Your task to perform on an android device: check google app version Image 0: 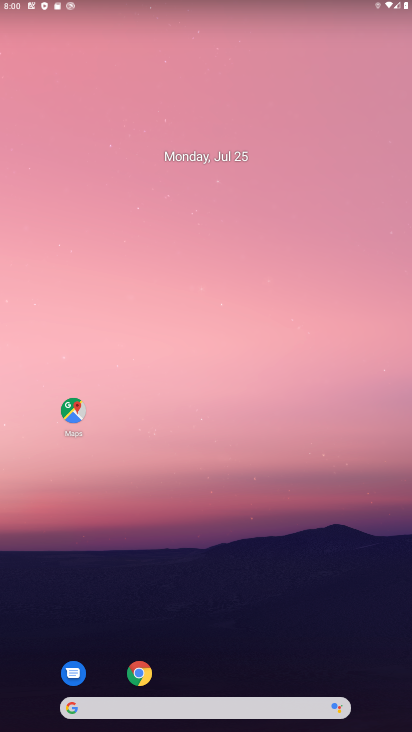
Step 0: click (216, 316)
Your task to perform on an android device: check google app version Image 1: 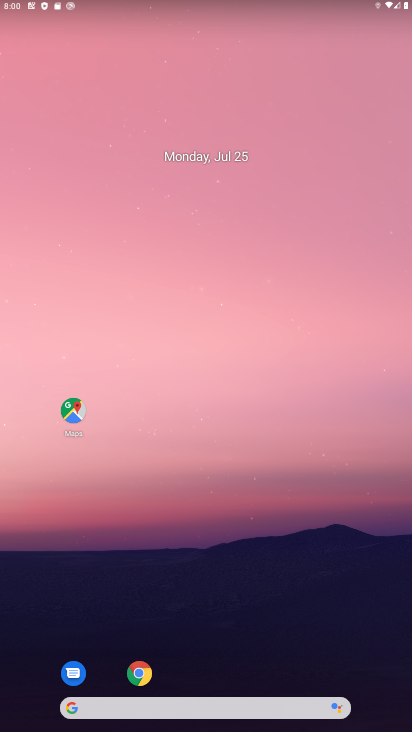
Step 1: drag from (277, 623) to (206, 92)
Your task to perform on an android device: check google app version Image 2: 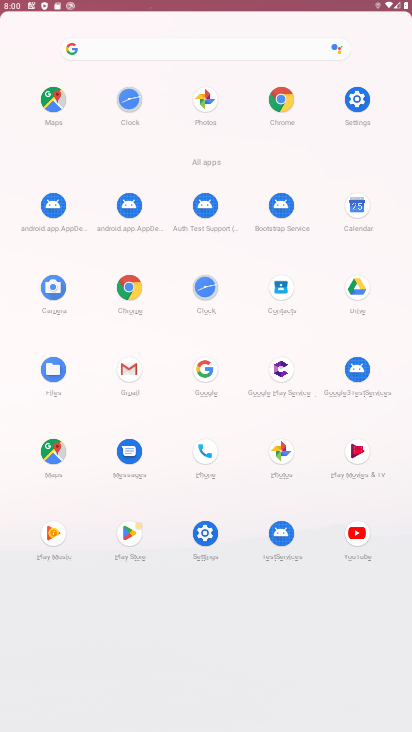
Step 2: drag from (267, 624) to (220, 173)
Your task to perform on an android device: check google app version Image 3: 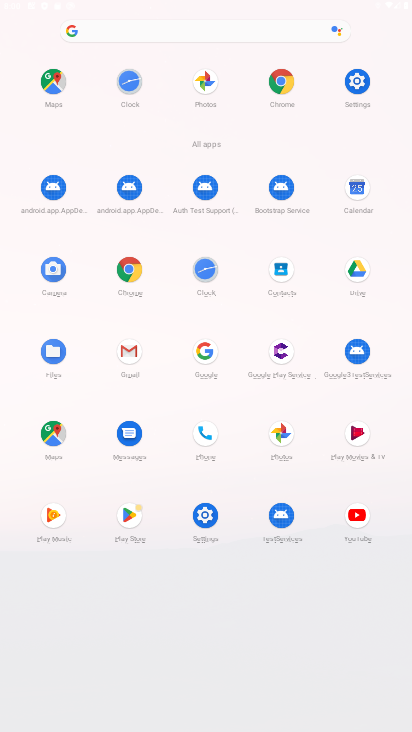
Step 3: click (208, 343)
Your task to perform on an android device: check google app version Image 4: 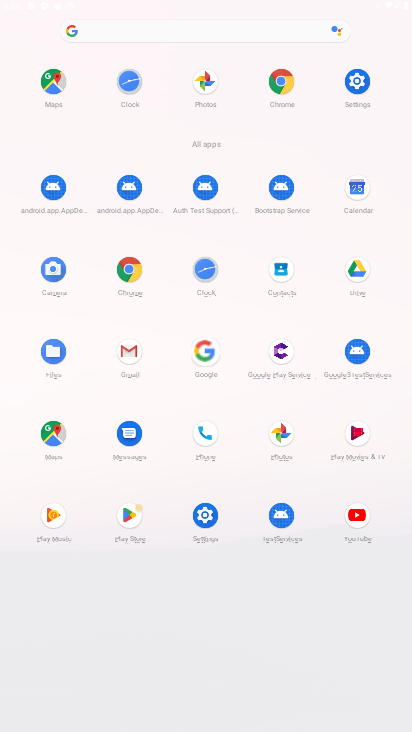
Step 4: click (208, 350)
Your task to perform on an android device: check google app version Image 5: 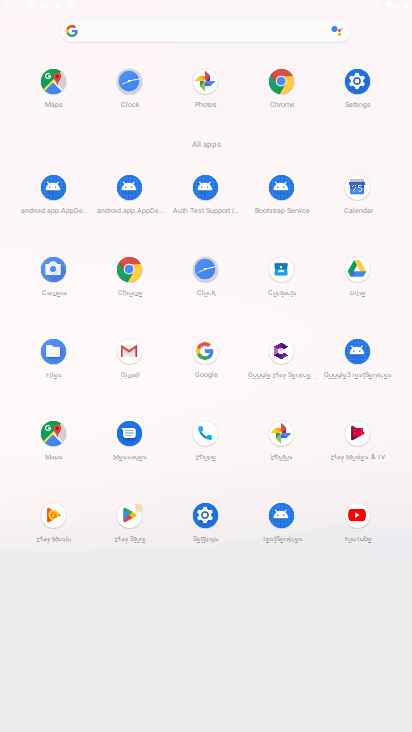
Step 5: click (201, 347)
Your task to perform on an android device: check google app version Image 6: 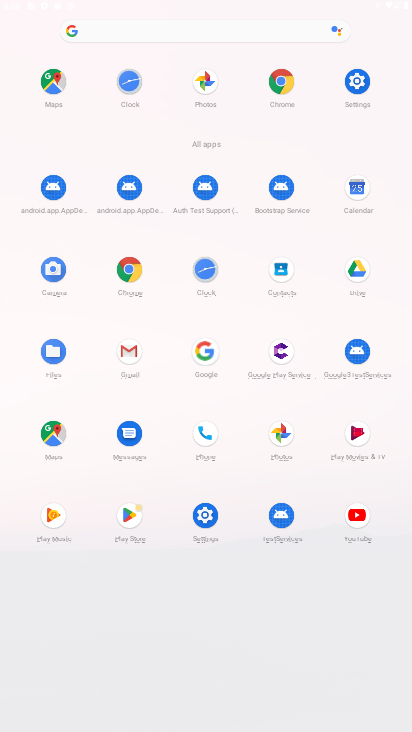
Step 6: click (206, 348)
Your task to perform on an android device: check google app version Image 7: 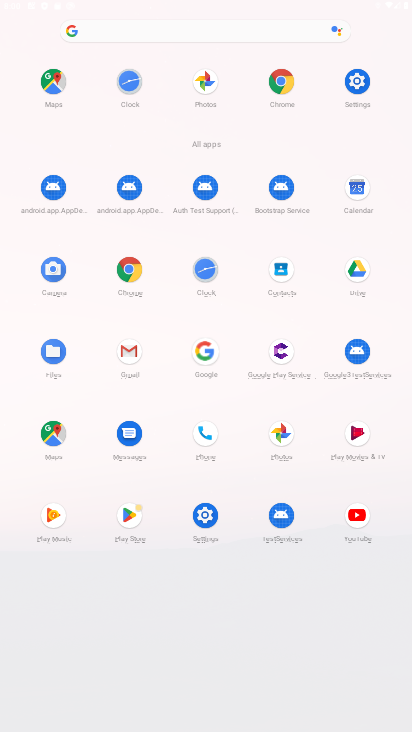
Step 7: click (210, 349)
Your task to perform on an android device: check google app version Image 8: 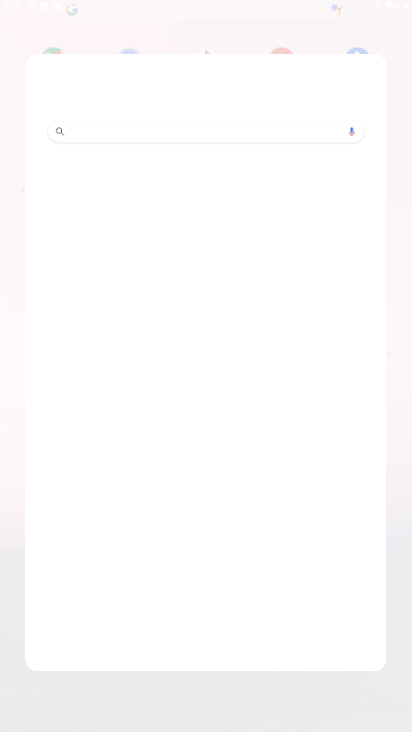
Step 8: click (209, 345)
Your task to perform on an android device: check google app version Image 9: 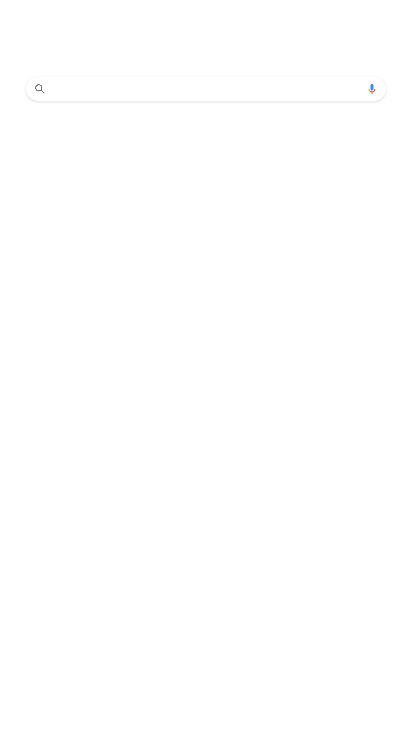
Step 9: click (209, 345)
Your task to perform on an android device: check google app version Image 10: 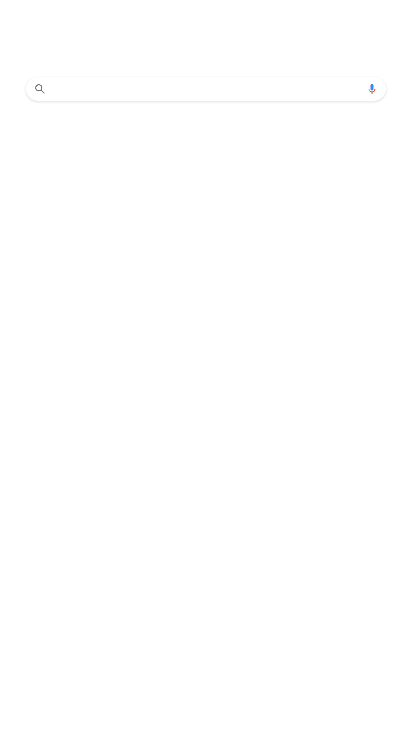
Step 10: click (209, 354)
Your task to perform on an android device: check google app version Image 11: 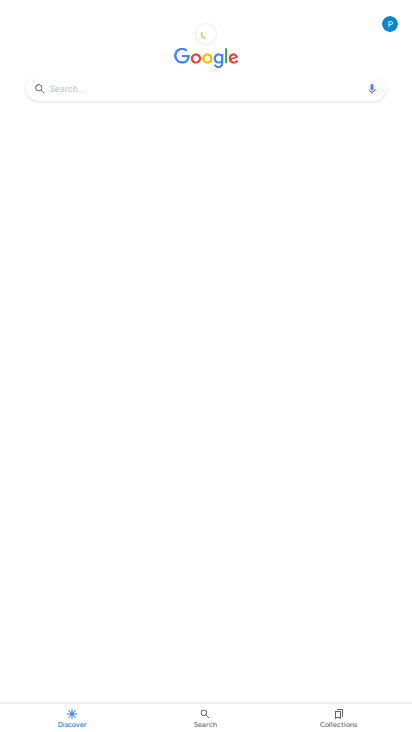
Step 11: drag from (383, 24) to (307, 334)
Your task to perform on an android device: check google app version Image 12: 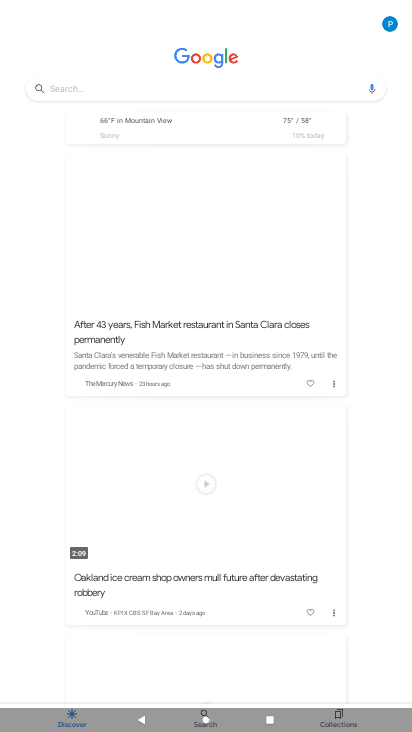
Step 12: drag from (381, 34) to (201, 510)
Your task to perform on an android device: check google app version Image 13: 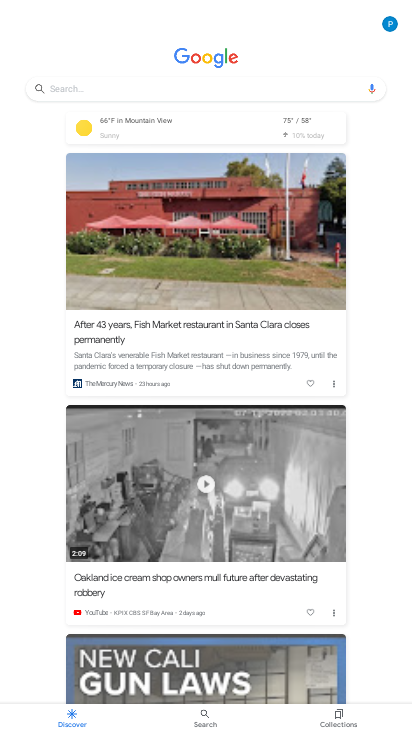
Step 13: drag from (378, 40) to (264, 438)
Your task to perform on an android device: check google app version Image 14: 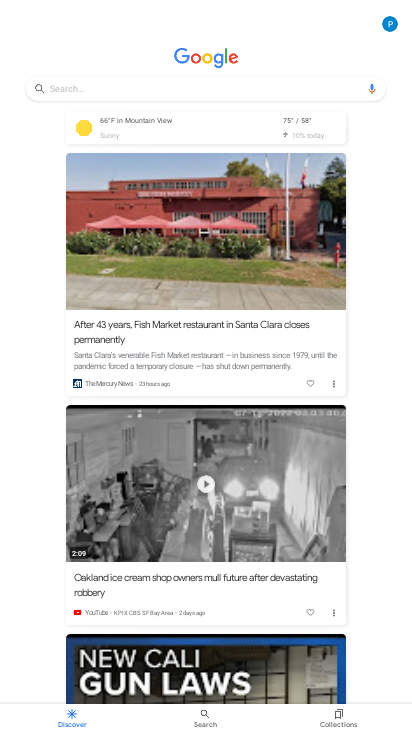
Step 14: drag from (374, 75) to (251, 519)
Your task to perform on an android device: check google app version Image 15: 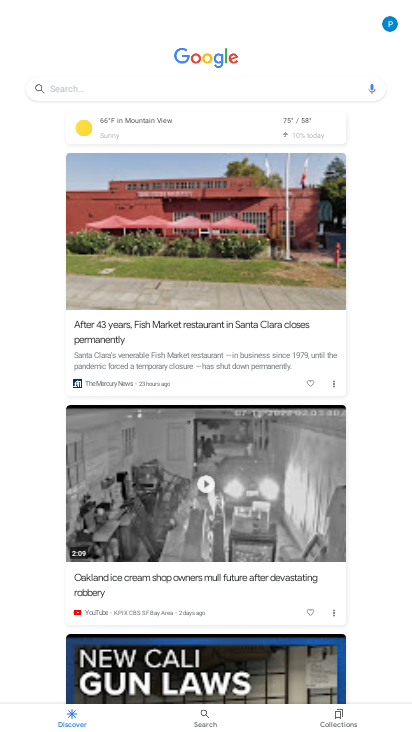
Step 15: click (405, 46)
Your task to perform on an android device: check google app version Image 16: 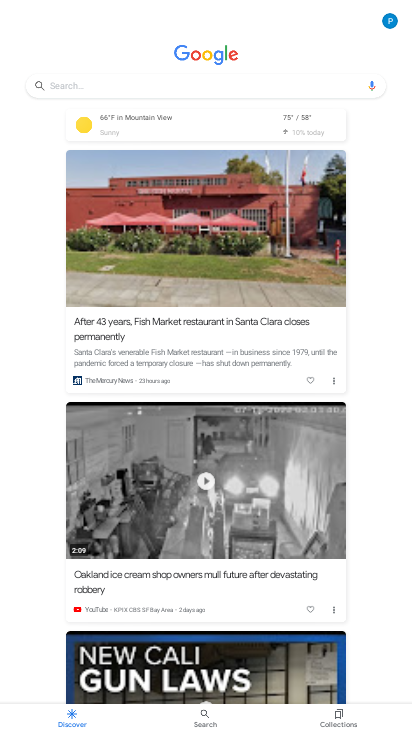
Step 16: click (393, 10)
Your task to perform on an android device: check google app version Image 17: 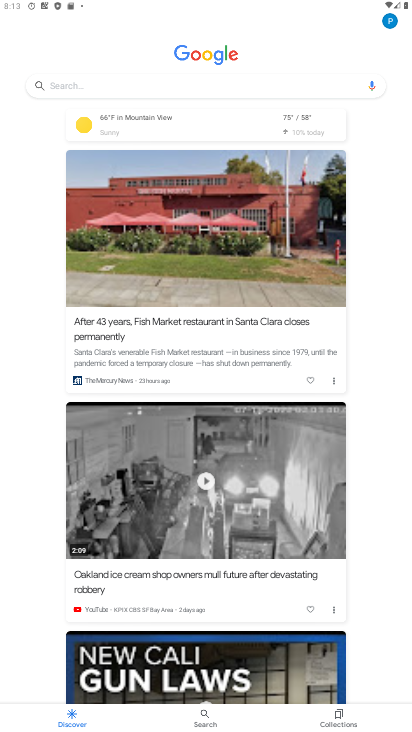
Step 17: click (393, 21)
Your task to perform on an android device: check google app version Image 18: 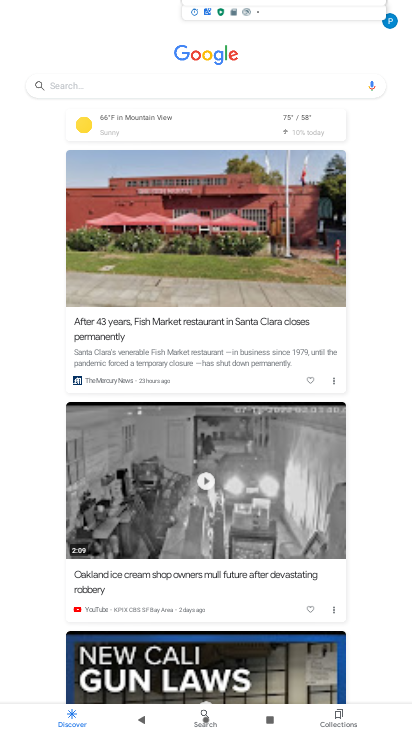
Step 18: click (388, 30)
Your task to perform on an android device: check google app version Image 19: 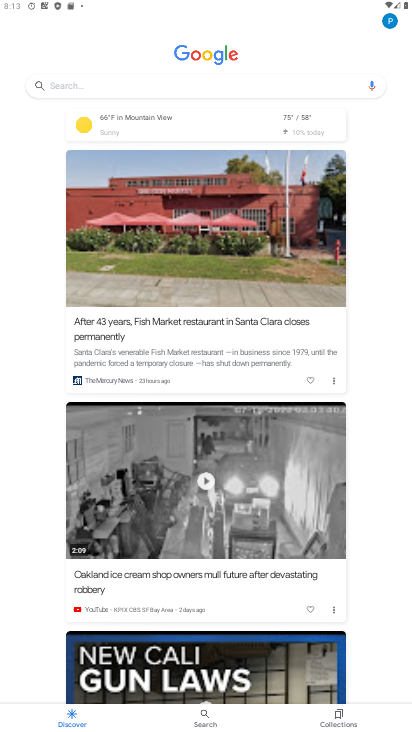
Step 19: drag from (384, 21) to (389, 59)
Your task to perform on an android device: check google app version Image 20: 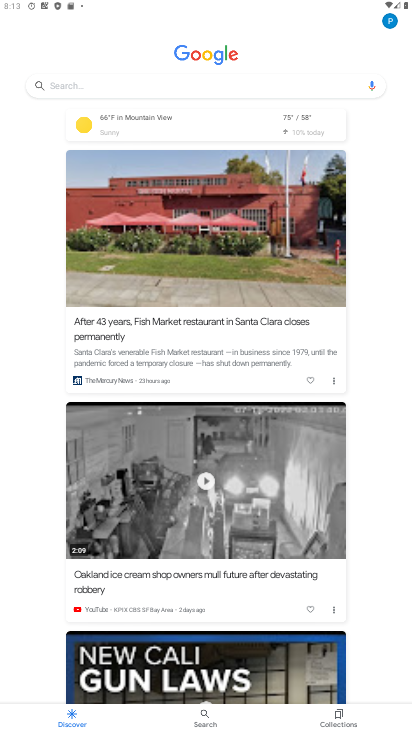
Step 20: drag from (333, 194) to (333, 260)
Your task to perform on an android device: check google app version Image 21: 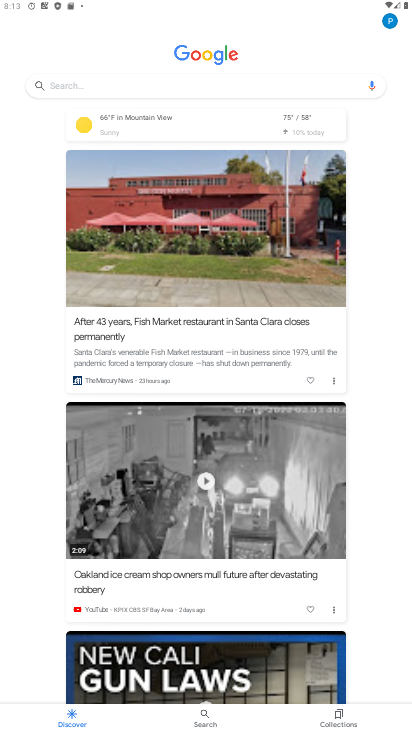
Step 21: drag from (332, 136) to (300, 366)
Your task to perform on an android device: check google app version Image 22: 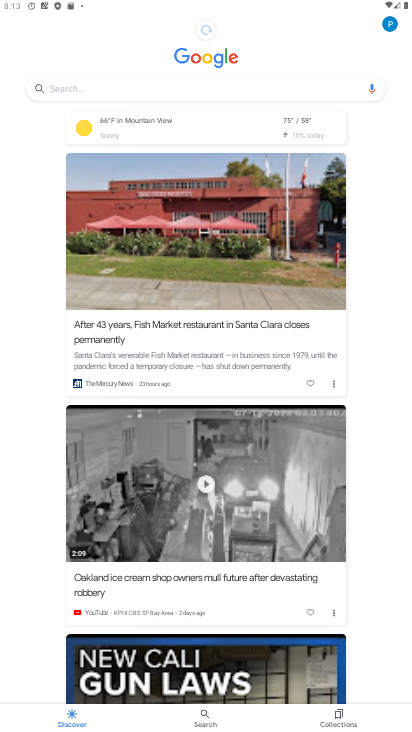
Step 22: drag from (315, 117) to (310, 383)
Your task to perform on an android device: check google app version Image 23: 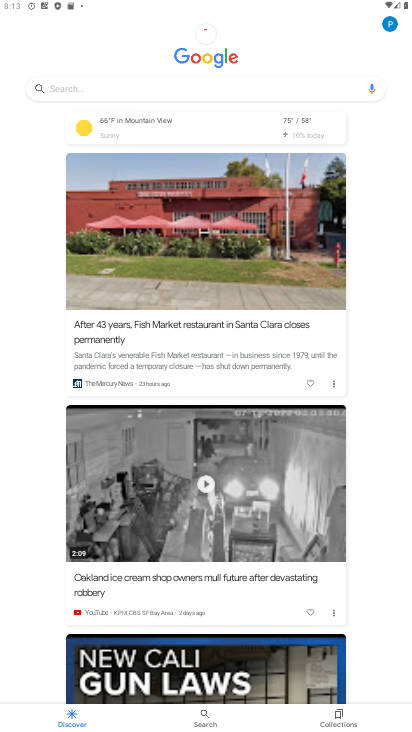
Step 23: click (385, 9)
Your task to perform on an android device: check google app version Image 24: 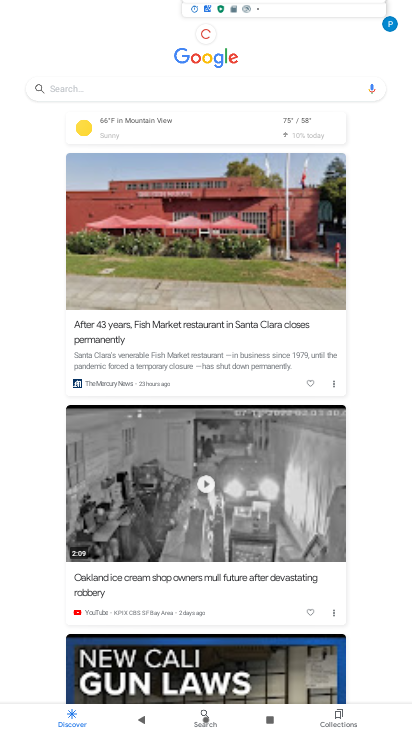
Step 24: click (382, 3)
Your task to perform on an android device: check google app version Image 25: 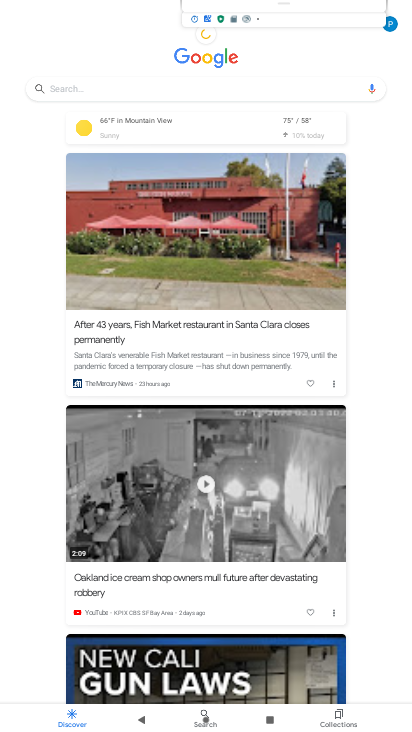
Step 25: click (392, 29)
Your task to perform on an android device: check google app version Image 26: 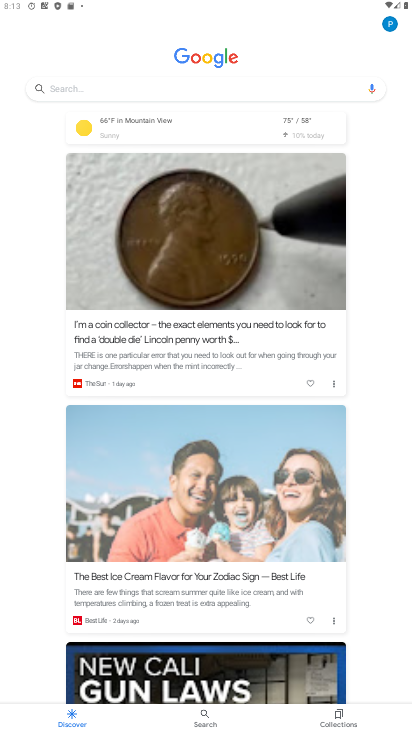
Step 26: click (386, 25)
Your task to perform on an android device: check google app version Image 27: 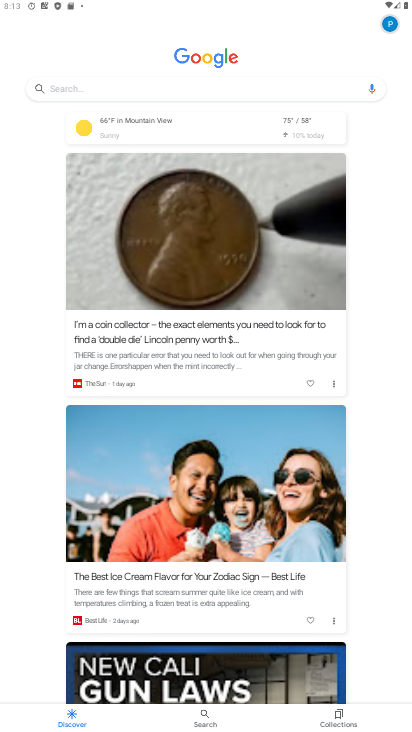
Step 27: click (385, 28)
Your task to perform on an android device: check google app version Image 28: 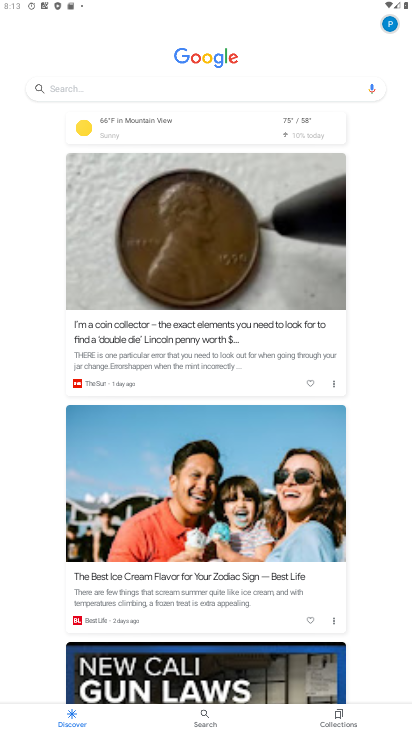
Step 28: click (387, 26)
Your task to perform on an android device: check google app version Image 29: 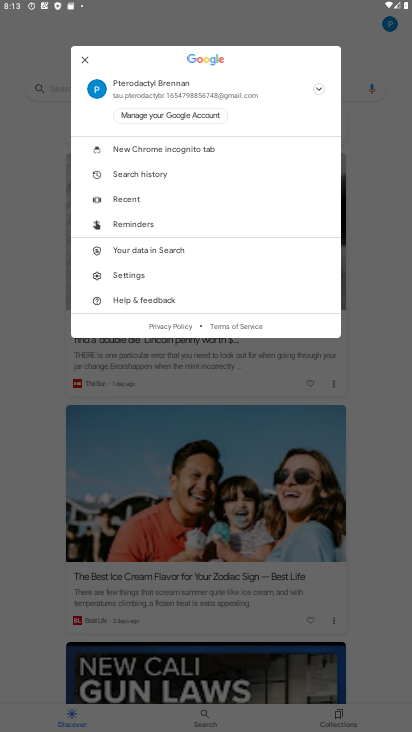
Step 29: click (391, 26)
Your task to perform on an android device: check google app version Image 30: 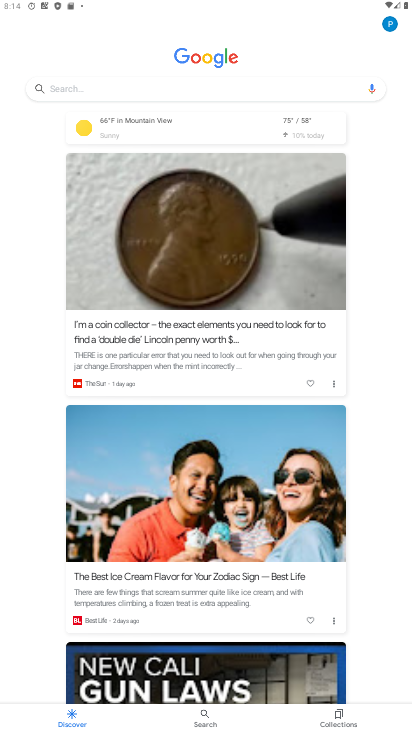
Step 30: click (390, 13)
Your task to perform on an android device: check google app version Image 31: 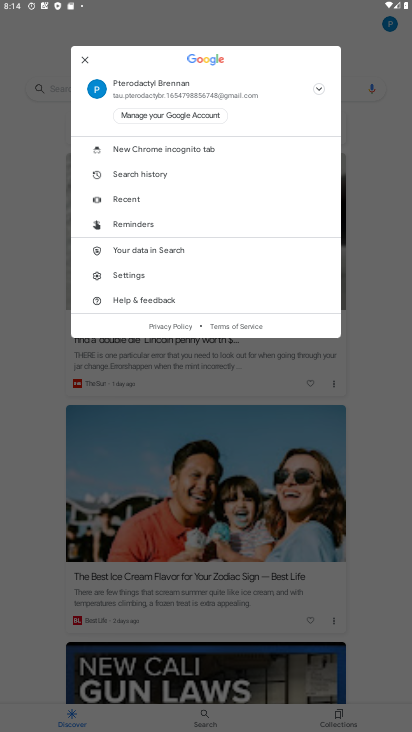
Step 31: click (117, 268)
Your task to perform on an android device: check google app version Image 32: 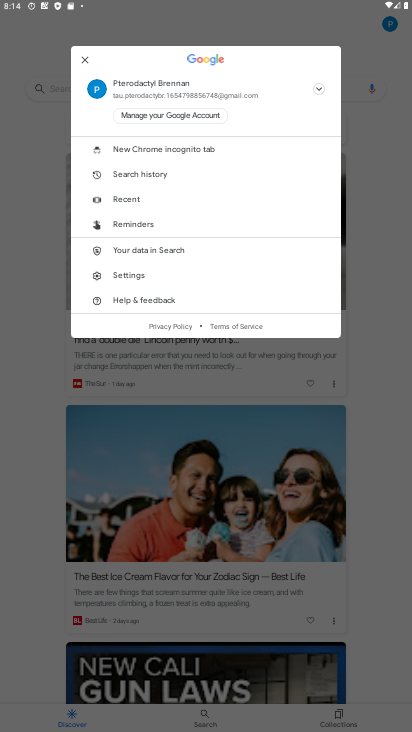
Step 32: click (136, 270)
Your task to perform on an android device: check google app version Image 33: 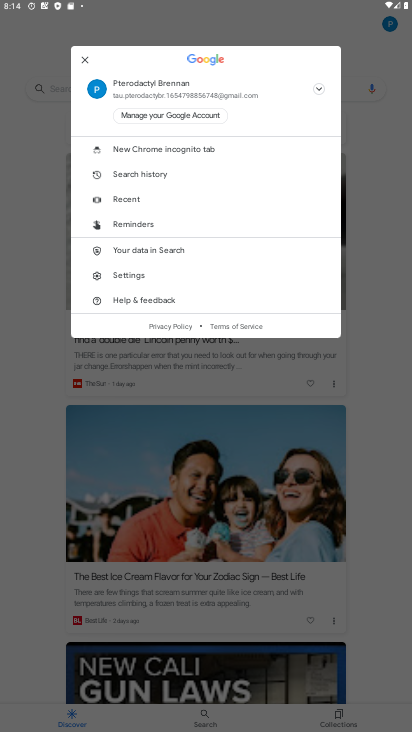
Step 33: click (136, 277)
Your task to perform on an android device: check google app version Image 34: 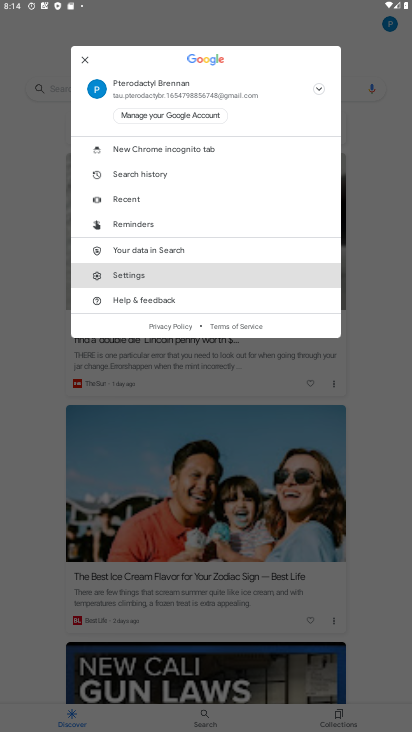
Step 34: click (135, 273)
Your task to perform on an android device: check google app version Image 35: 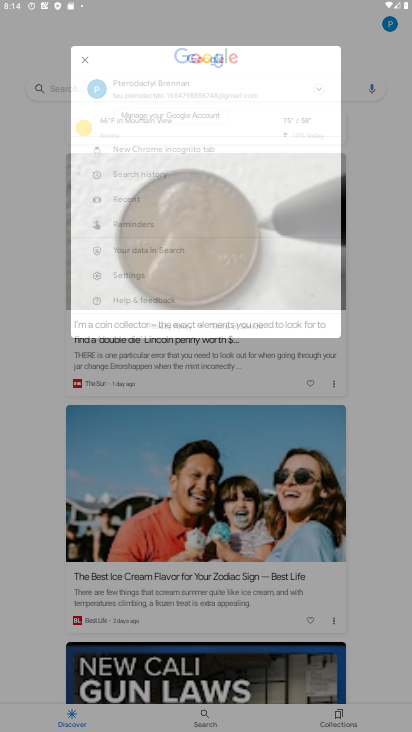
Step 35: click (133, 273)
Your task to perform on an android device: check google app version Image 36: 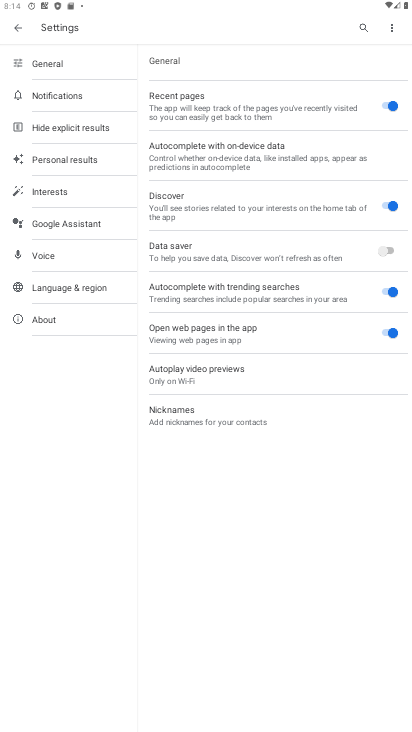
Step 36: click (55, 306)
Your task to perform on an android device: check google app version Image 37: 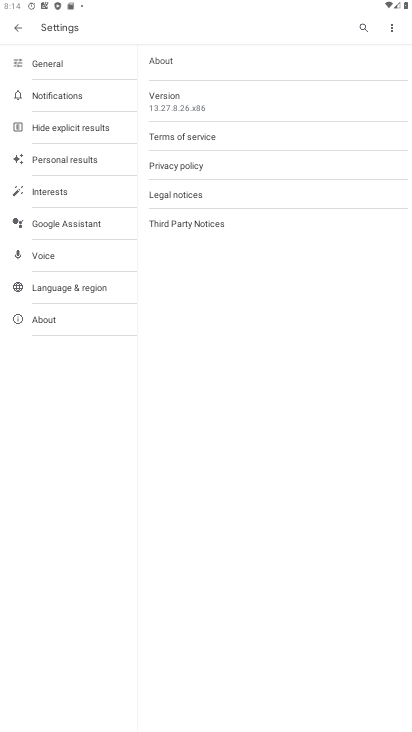
Step 37: click (181, 92)
Your task to perform on an android device: check google app version Image 38: 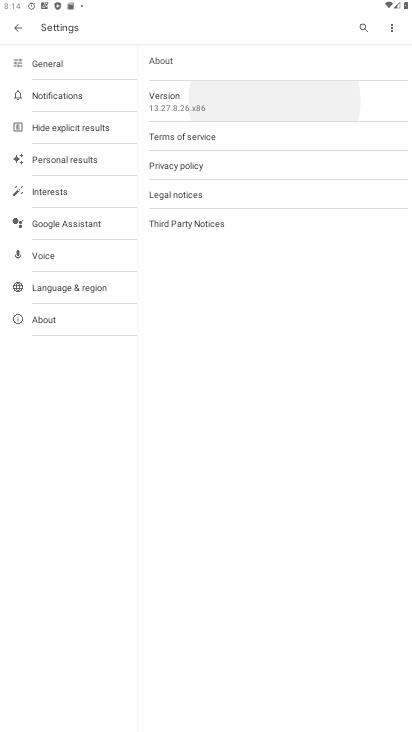
Step 38: click (181, 98)
Your task to perform on an android device: check google app version Image 39: 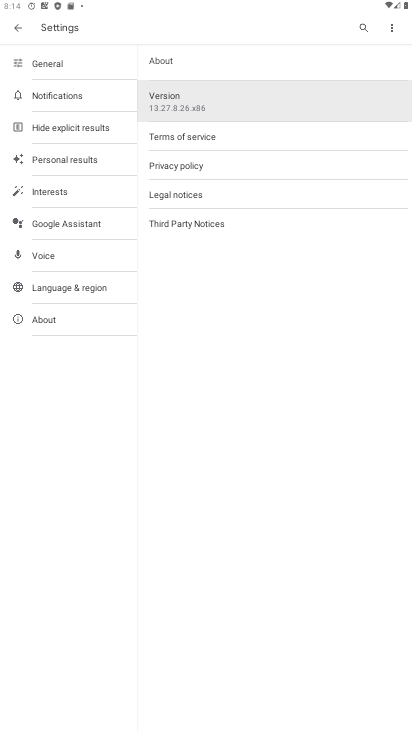
Step 39: click (182, 101)
Your task to perform on an android device: check google app version Image 40: 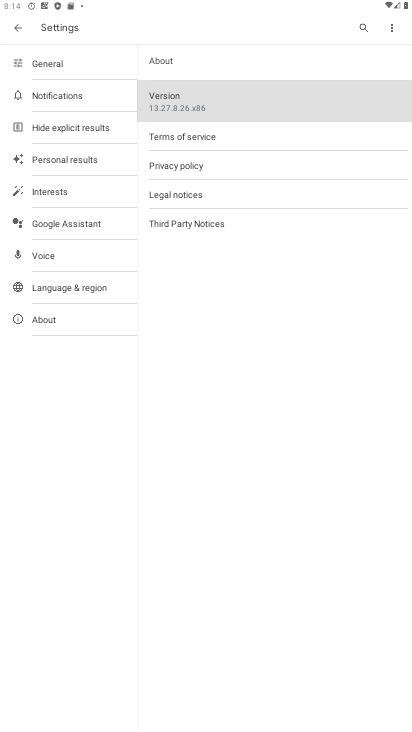
Step 40: click (182, 101)
Your task to perform on an android device: check google app version Image 41: 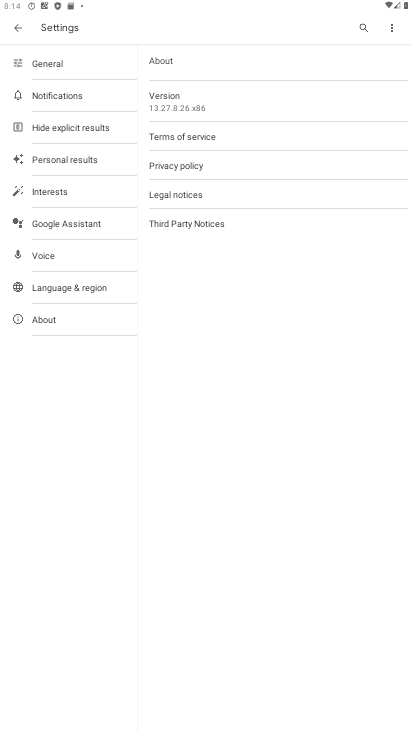
Step 41: task complete